Your task to perform on an android device: Go to Google Image 0: 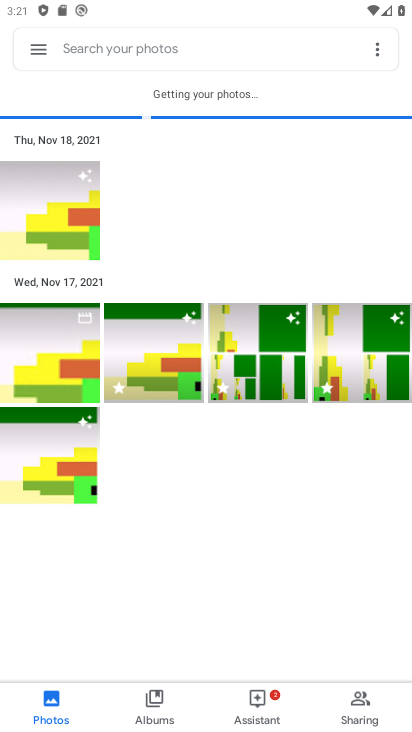
Step 0: press home button
Your task to perform on an android device: Go to Google Image 1: 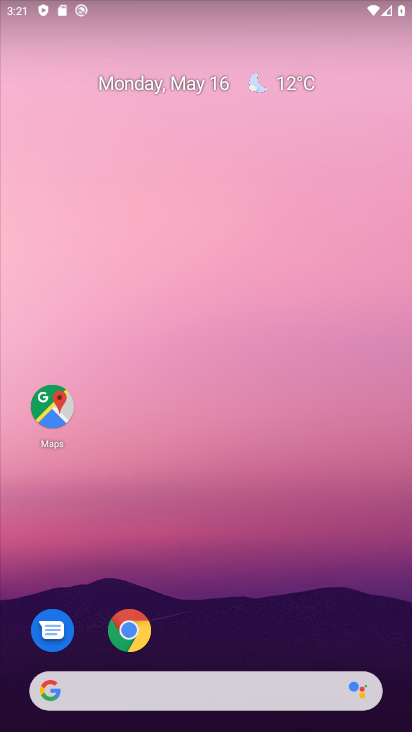
Step 1: drag from (179, 657) to (252, 176)
Your task to perform on an android device: Go to Google Image 2: 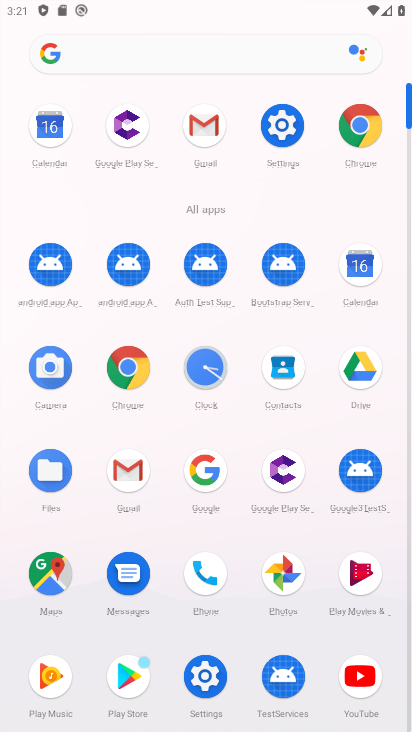
Step 2: click (204, 486)
Your task to perform on an android device: Go to Google Image 3: 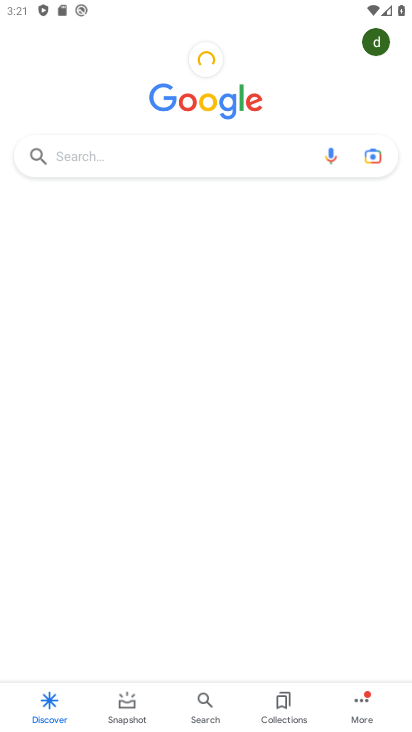
Step 3: task complete